Your task to perform on an android device: Open Google Chrome and open the bookmarks view Image 0: 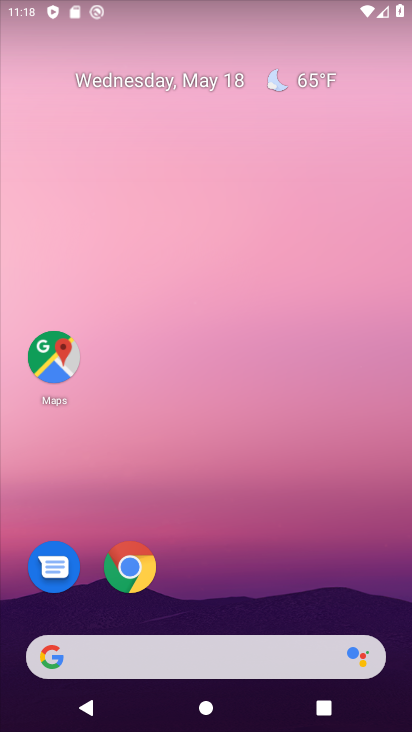
Step 0: click (135, 562)
Your task to perform on an android device: Open Google Chrome and open the bookmarks view Image 1: 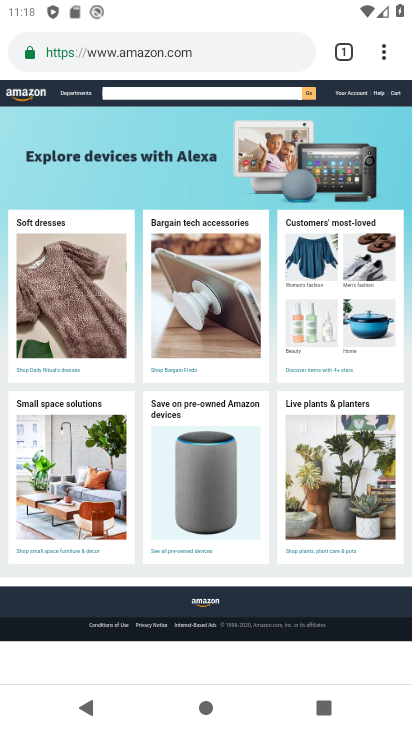
Step 1: click (378, 50)
Your task to perform on an android device: Open Google Chrome and open the bookmarks view Image 2: 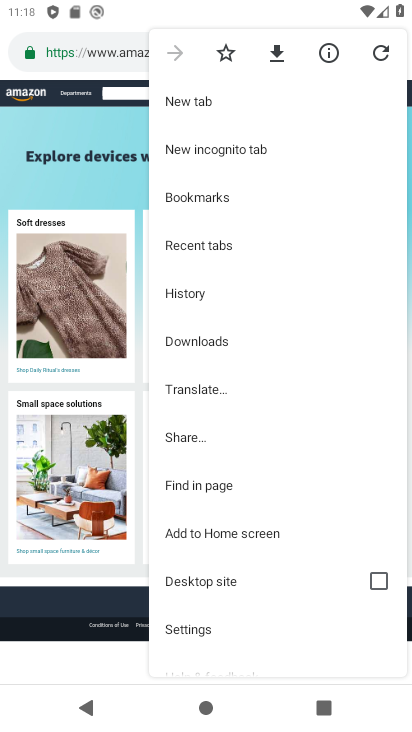
Step 2: click (215, 194)
Your task to perform on an android device: Open Google Chrome and open the bookmarks view Image 3: 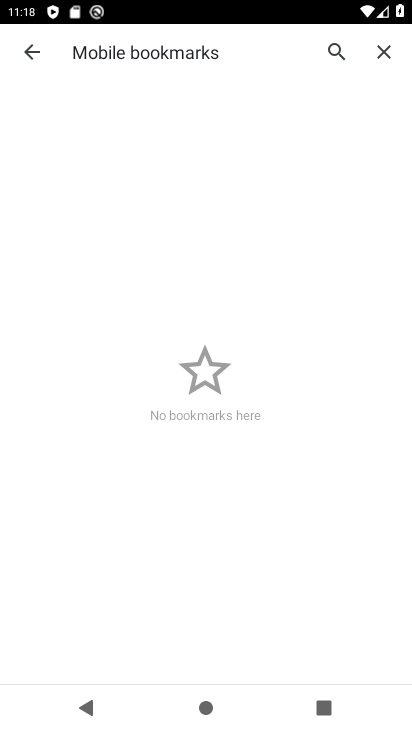
Step 3: task complete